Your task to perform on an android device: Open Amazon Image 0: 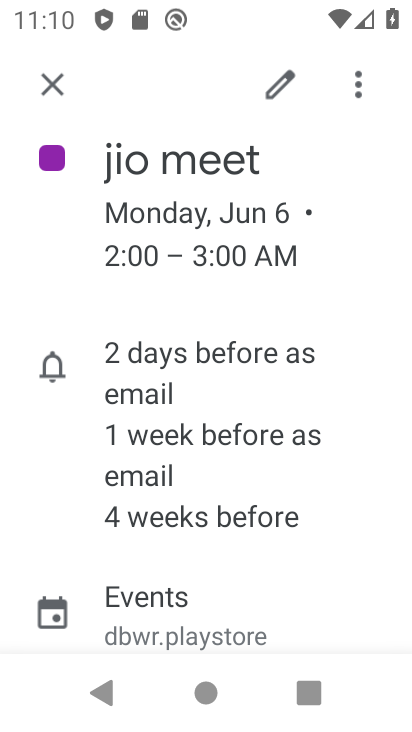
Step 0: press home button
Your task to perform on an android device: Open Amazon Image 1: 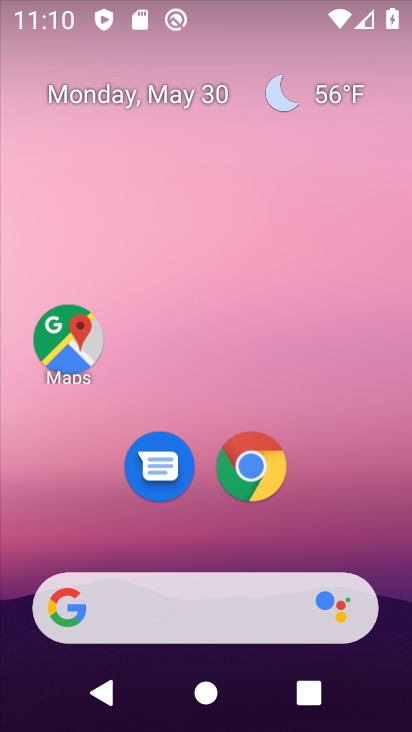
Step 1: click (244, 459)
Your task to perform on an android device: Open Amazon Image 2: 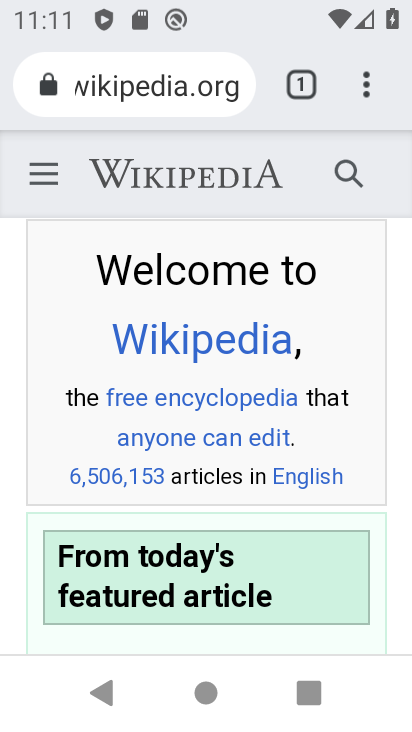
Step 2: click (310, 78)
Your task to perform on an android device: Open Amazon Image 3: 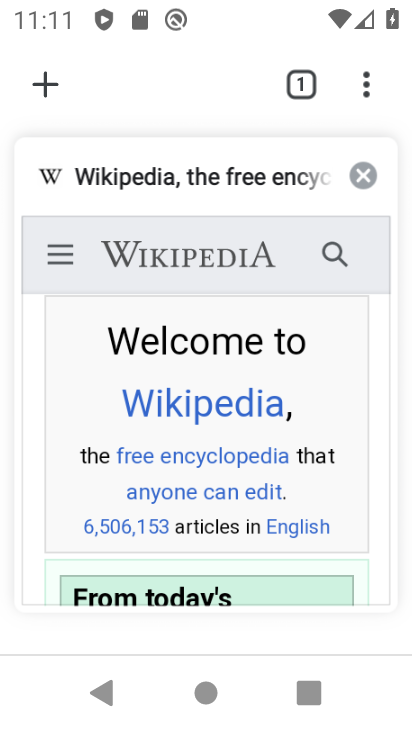
Step 3: click (362, 180)
Your task to perform on an android device: Open Amazon Image 4: 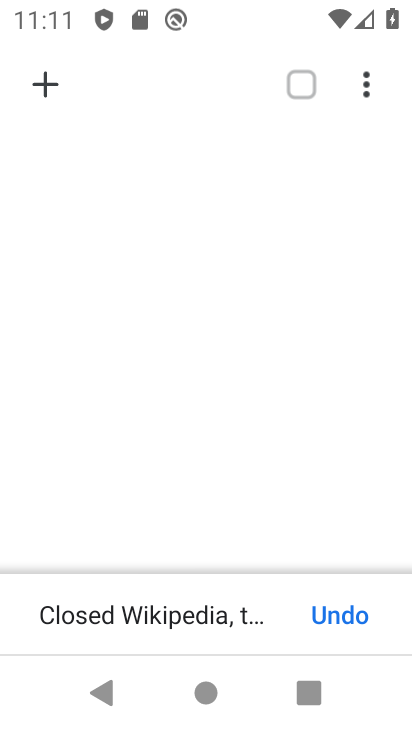
Step 4: click (59, 85)
Your task to perform on an android device: Open Amazon Image 5: 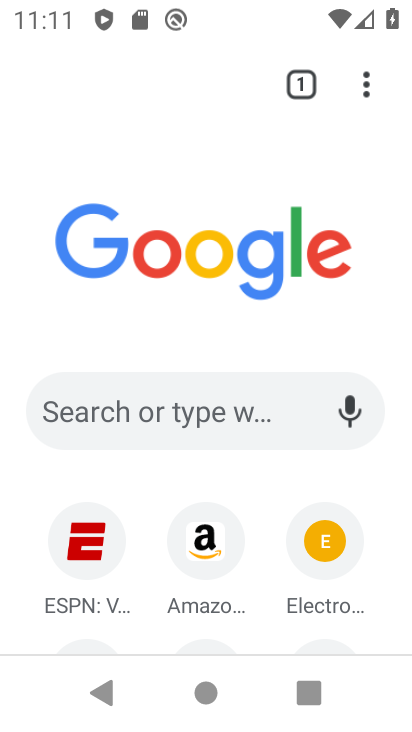
Step 5: click (216, 526)
Your task to perform on an android device: Open Amazon Image 6: 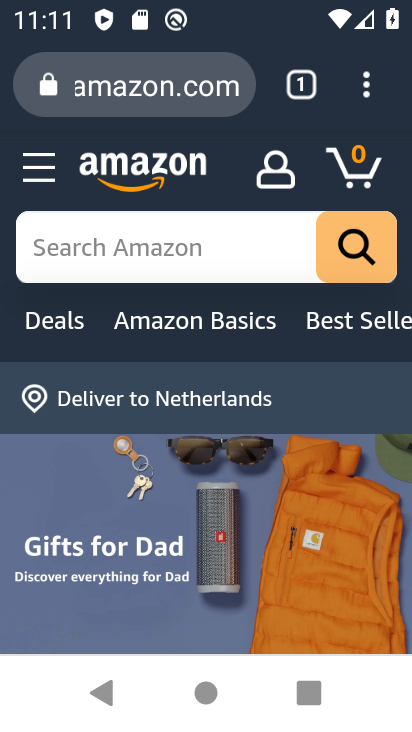
Step 6: task complete